Your task to perform on an android device: See recent photos Image 0: 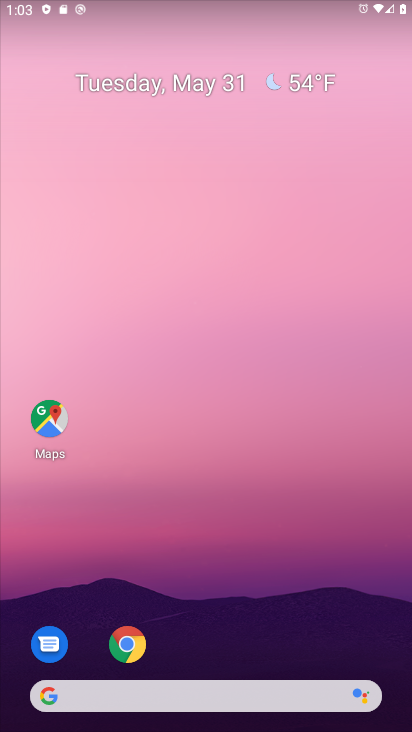
Step 0: press home button
Your task to perform on an android device: See recent photos Image 1: 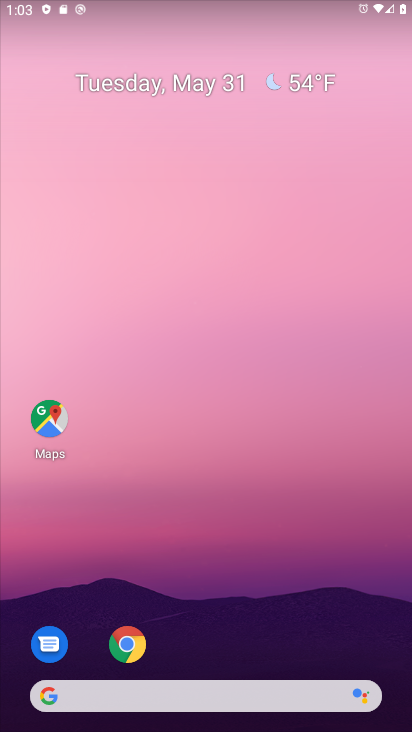
Step 1: drag from (316, 617) to (248, 240)
Your task to perform on an android device: See recent photos Image 2: 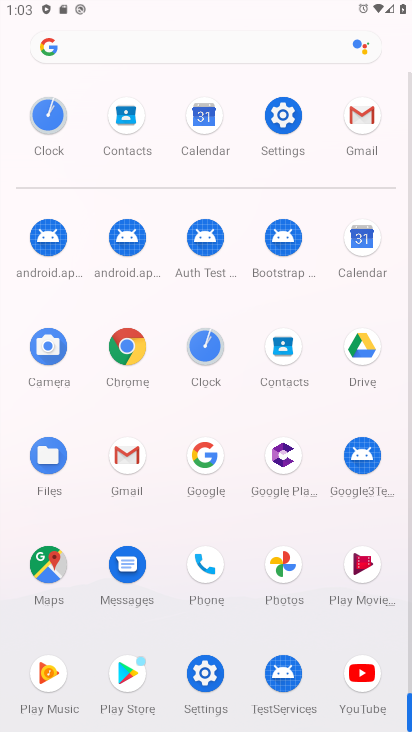
Step 2: click (277, 563)
Your task to perform on an android device: See recent photos Image 3: 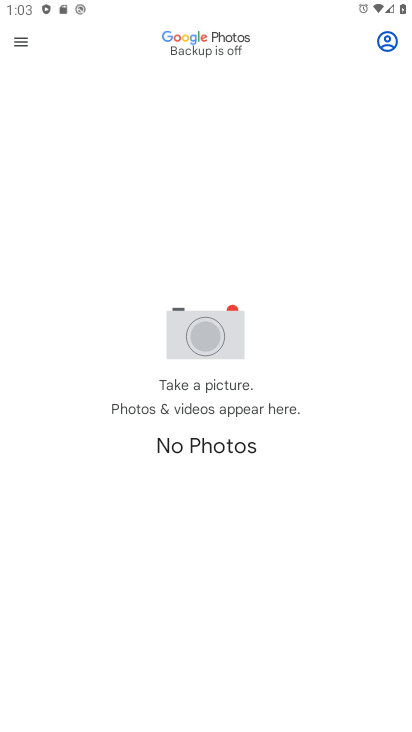
Step 3: click (29, 48)
Your task to perform on an android device: See recent photos Image 4: 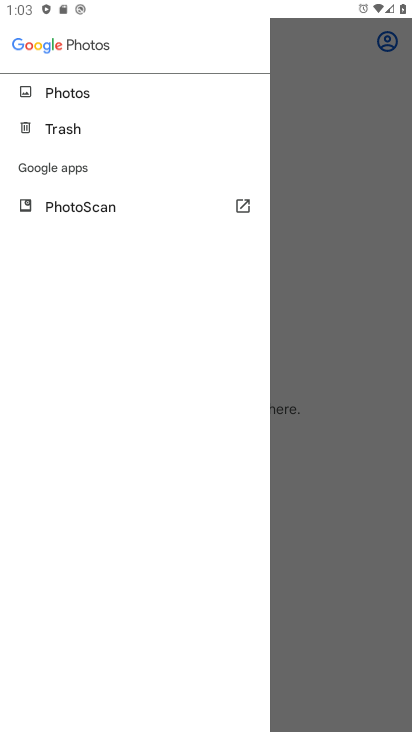
Step 4: click (61, 96)
Your task to perform on an android device: See recent photos Image 5: 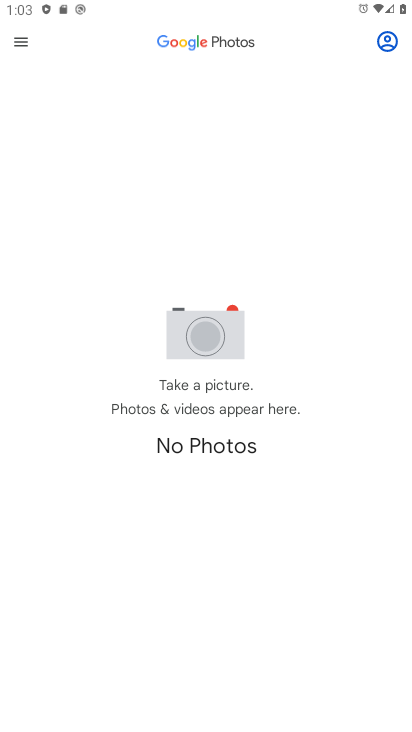
Step 5: task complete